Your task to perform on an android device: check google app version Image 0: 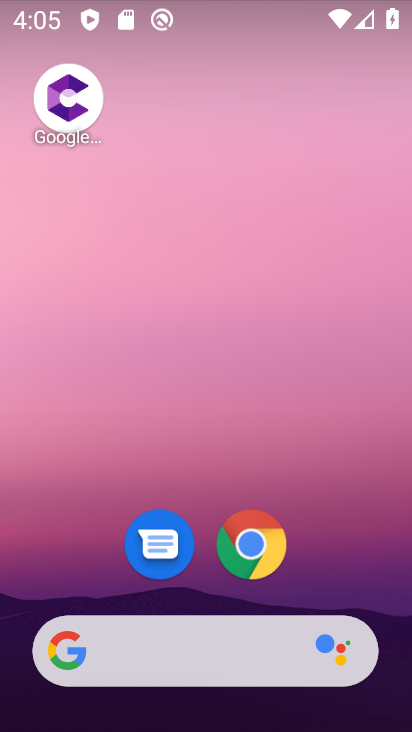
Step 0: drag from (323, 555) to (244, 101)
Your task to perform on an android device: check google app version Image 1: 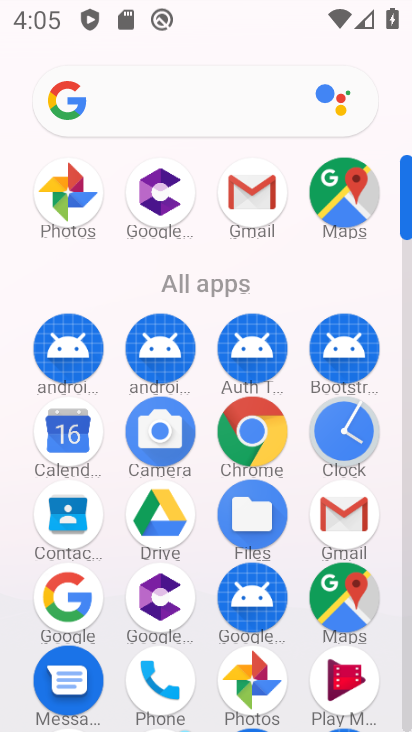
Step 1: drag from (188, 569) to (202, 269)
Your task to perform on an android device: check google app version Image 2: 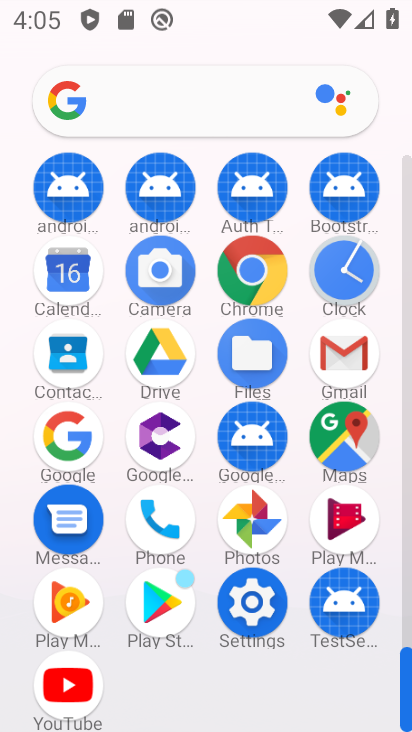
Step 2: click (67, 429)
Your task to perform on an android device: check google app version Image 3: 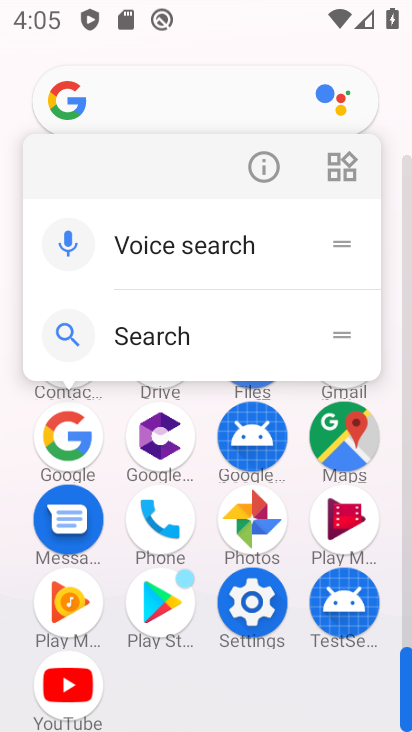
Step 3: click (258, 171)
Your task to perform on an android device: check google app version Image 4: 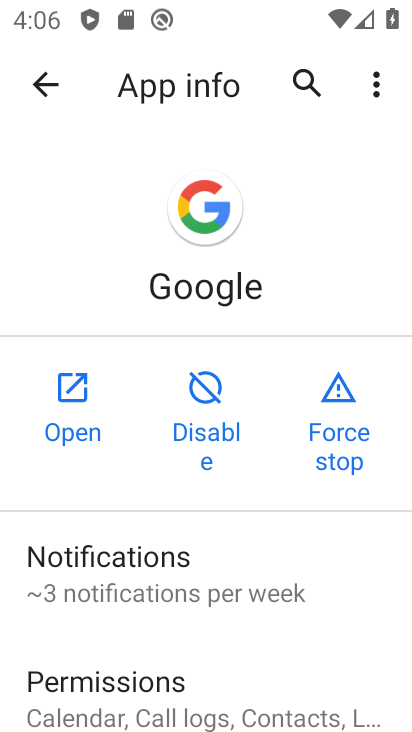
Step 4: drag from (133, 585) to (165, 425)
Your task to perform on an android device: check google app version Image 5: 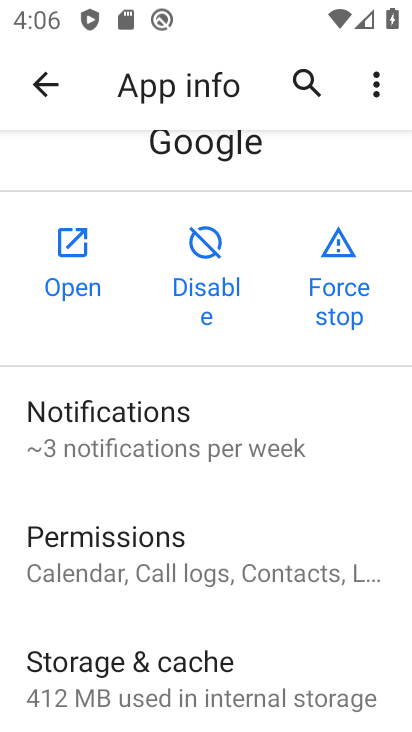
Step 5: drag from (156, 600) to (196, 408)
Your task to perform on an android device: check google app version Image 6: 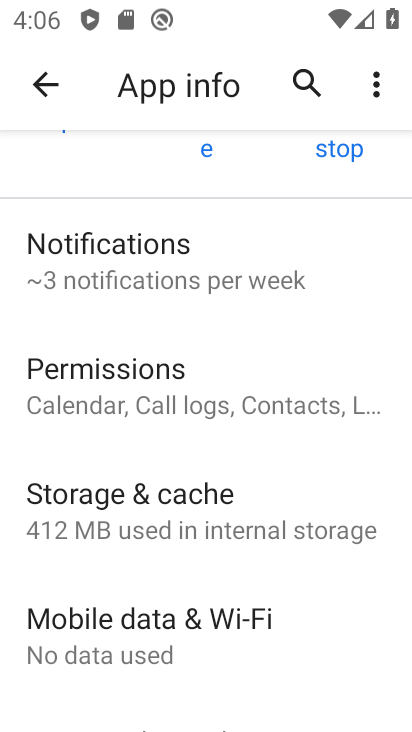
Step 6: drag from (145, 559) to (206, 359)
Your task to perform on an android device: check google app version Image 7: 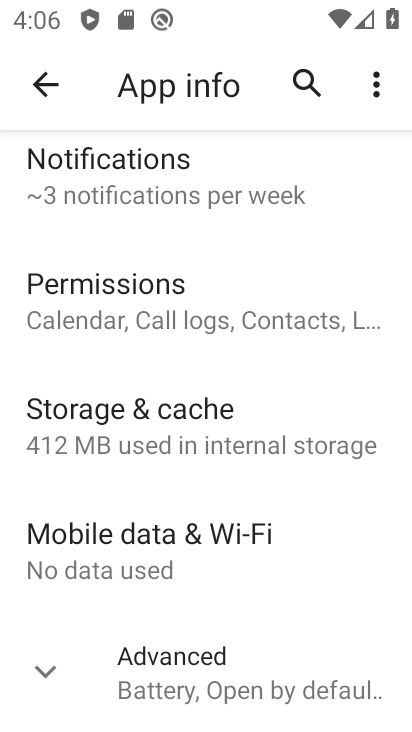
Step 7: click (174, 666)
Your task to perform on an android device: check google app version Image 8: 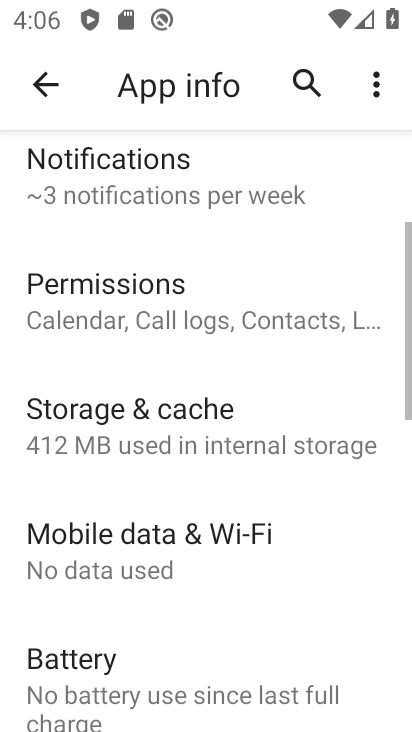
Step 8: task complete